Your task to perform on an android device: open the mobile data screen to see how much data has been used Image 0: 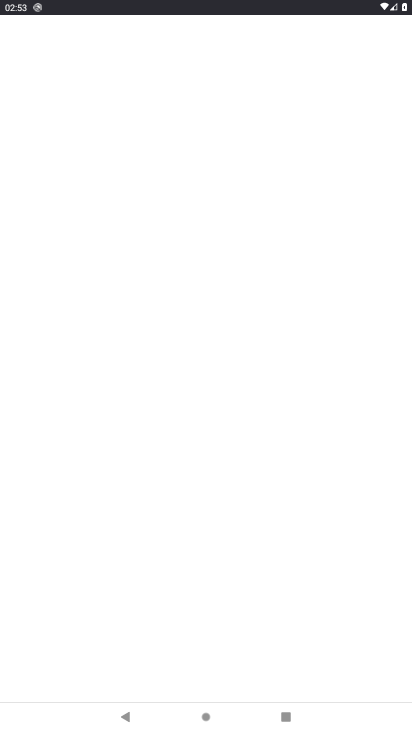
Step 0: drag from (12, 676) to (288, 94)
Your task to perform on an android device: open the mobile data screen to see how much data has been used Image 1: 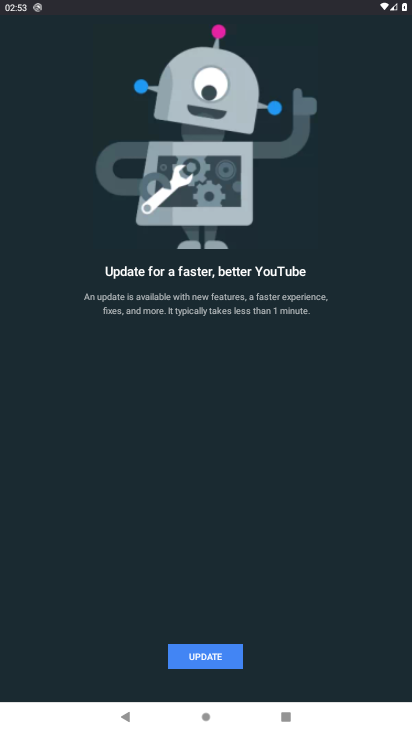
Step 1: press home button
Your task to perform on an android device: open the mobile data screen to see how much data has been used Image 2: 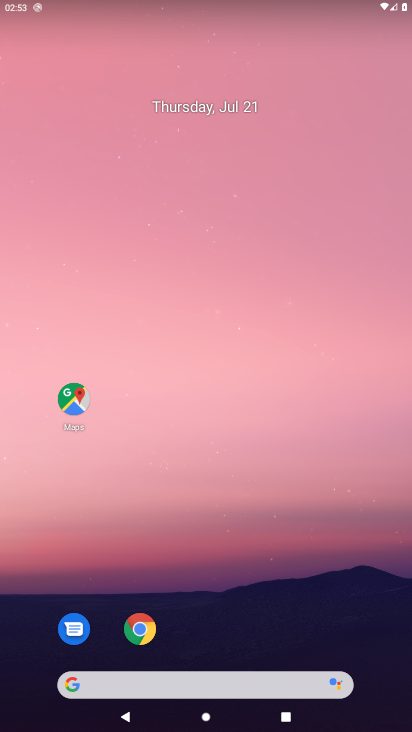
Step 2: drag from (25, 680) to (288, 182)
Your task to perform on an android device: open the mobile data screen to see how much data has been used Image 3: 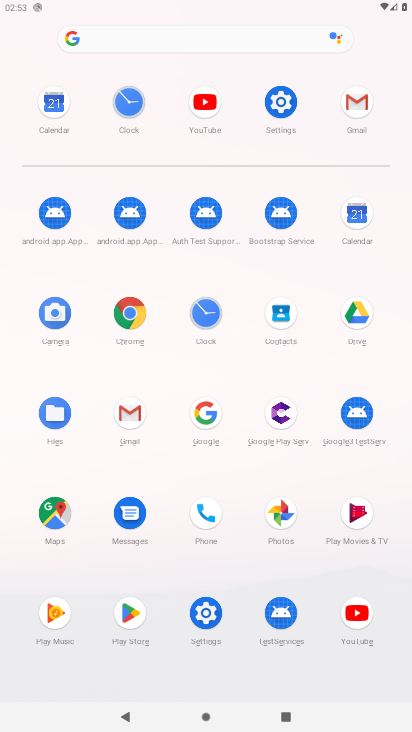
Step 3: click (208, 627)
Your task to perform on an android device: open the mobile data screen to see how much data has been used Image 4: 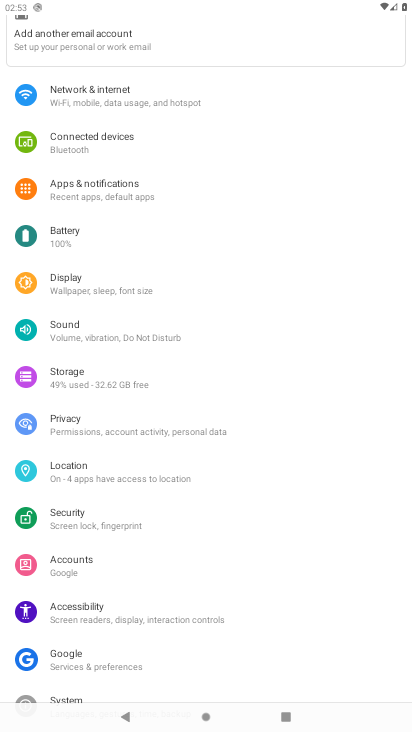
Step 4: click (95, 87)
Your task to perform on an android device: open the mobile data screen to see how much data has been used Image 5: 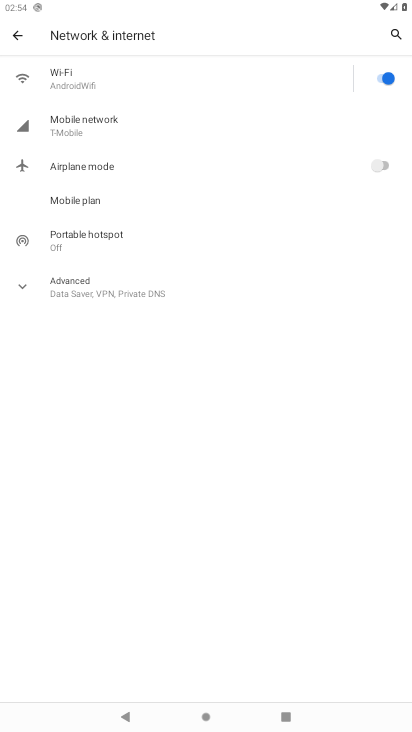
Step 5: click (118, 119)
Your task to perform on an android device: open the mobile data screen to see how much data has been used Image 6: 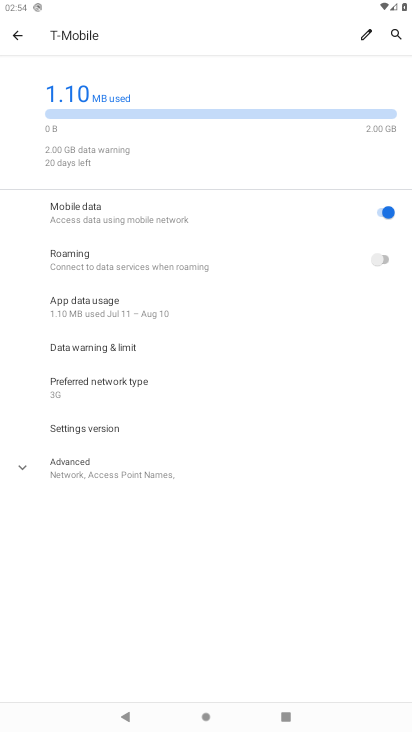
Step 6: task complete